Your task to perform on an android device: check battery use Image 0: 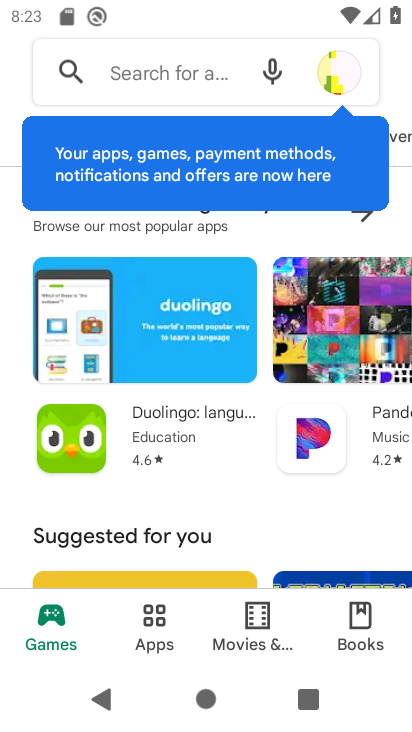
Step 0: press home button
Your task to perform on an android device: check battery use Image 1: 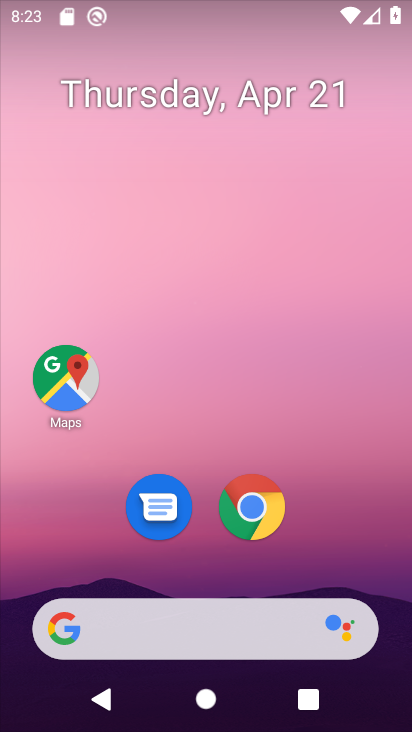
Step 1: drag from (392, 538) to (344, 88)
Your task to perform on an android device: check battery use Image 2: 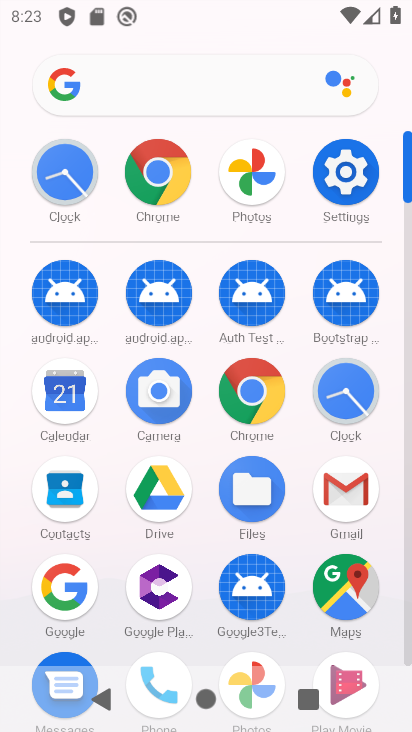
Step 2: click (344, 198)
Your task to perform on an android device: check battery use Image 3: 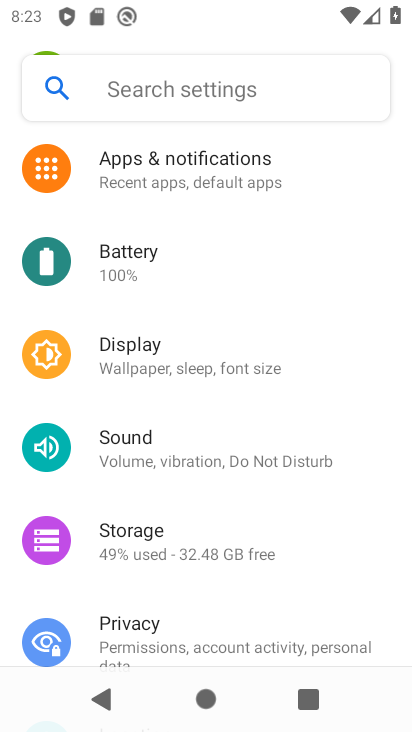
Step 3: click (141, 259)
Your task to perform on an android device: check battery use Image 4: 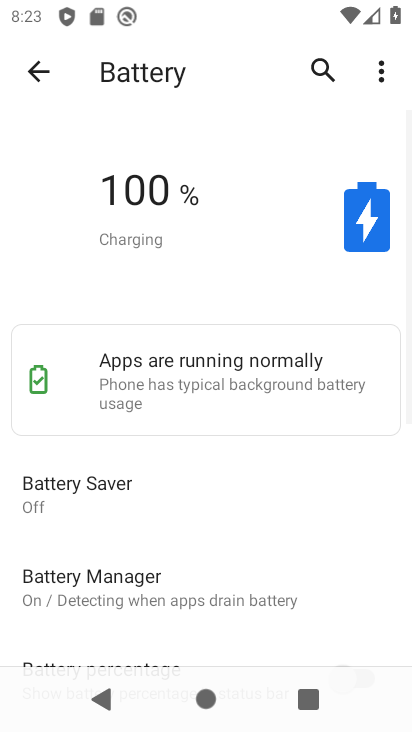
Step 4: click (386, 76)
Your task to perform on an android device: check battery use Image 5: 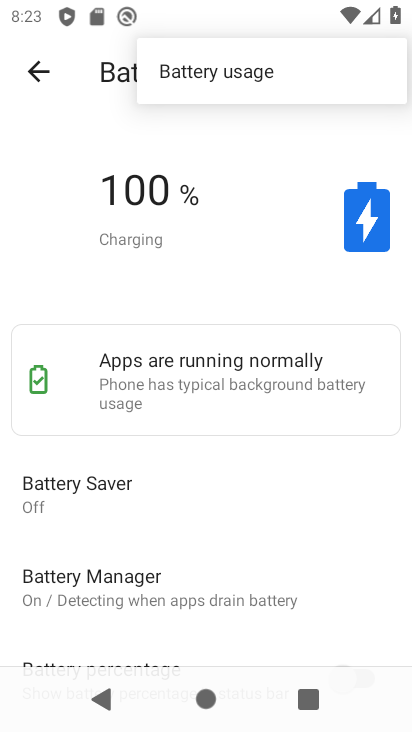
Step 5: click (210, 63)
Your task to perform on an android device: check battery use Image 6: 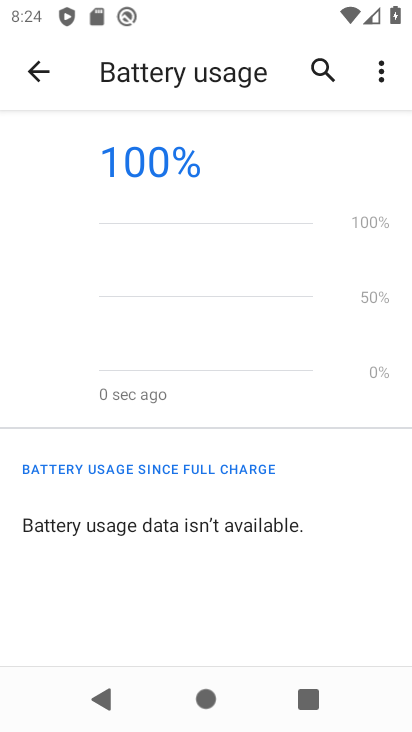
Step 6: task complete